Your task to perform on an android device: Show me the alarms in the clock app Image 0: 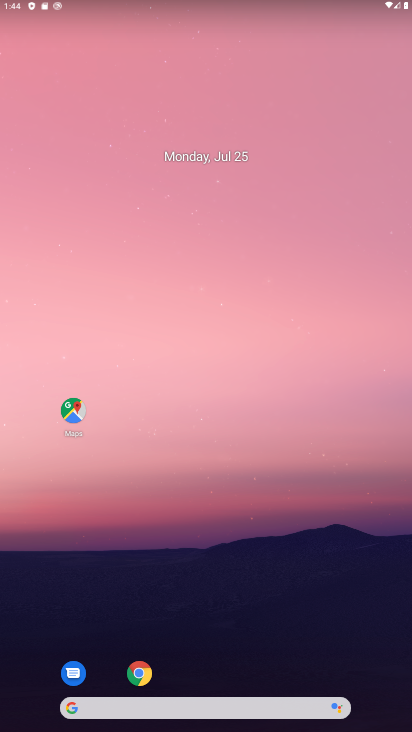
Step 0: drag from (180, 657) to (142, 0)
Your task to perform on an android device: Show me the alarms in the clock app Image 1: 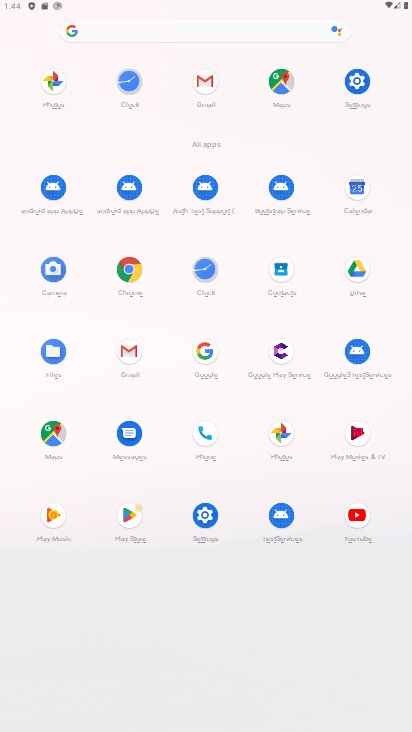
Step 1: click (129, 74)
Your task to perform on an android device: Show me the alarms in the clock app Image 2: 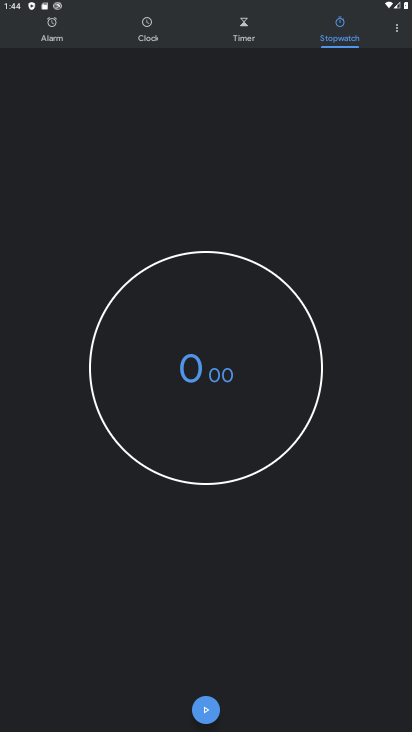
Step 2: click (51, 24)
Your task to perform on an android device: Show me the alarms in the clock app Image 3: 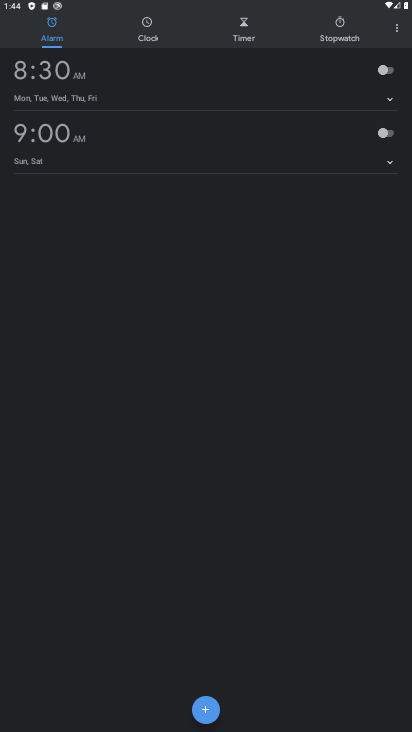
Step 3: task complete